Your task to perform on an android device: check out phone information Image 0: 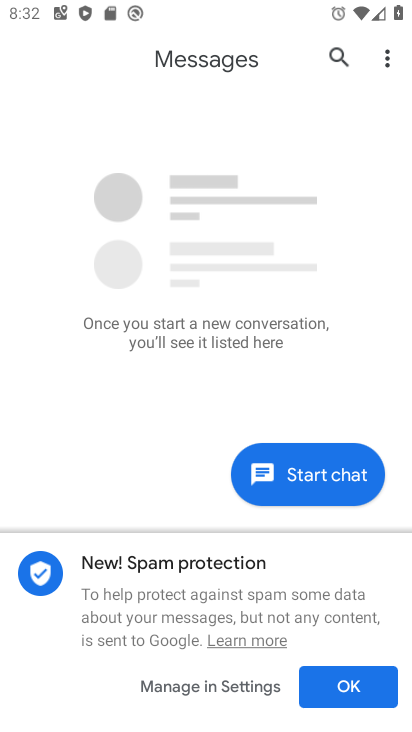
Step 0: press home button
Your task to perform on an android device: check out phone information Image 1: 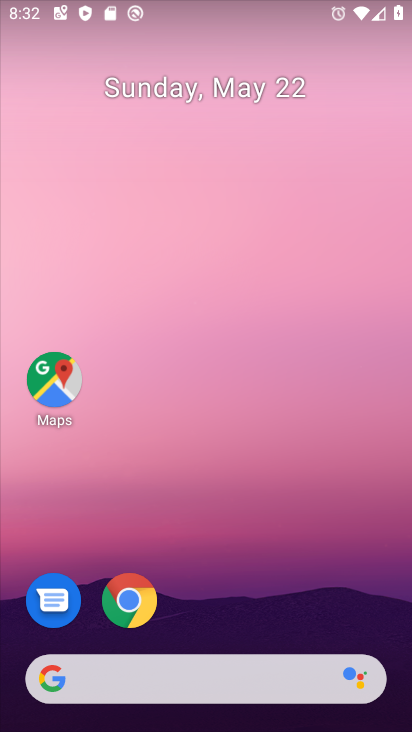
Step 1: drag from (274, 628) to (280, 299)
Your task to perform on an android device: check out phone information Image 2: 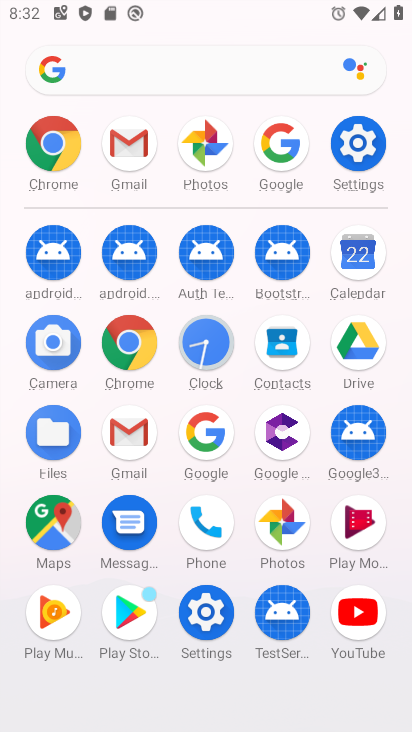
Step 2: click (366, 164)
Your task to perform on an android device: check out phone information Image 3: 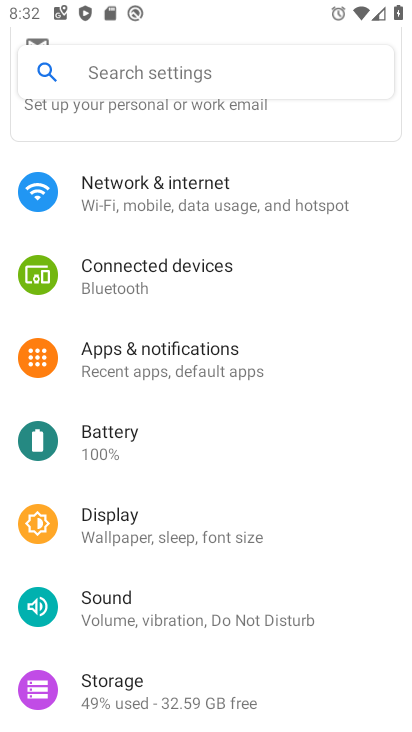
Step 3: drag from (302, 414) to (342, 252)
Your task to perform on an android device: check out phone information Image 4: 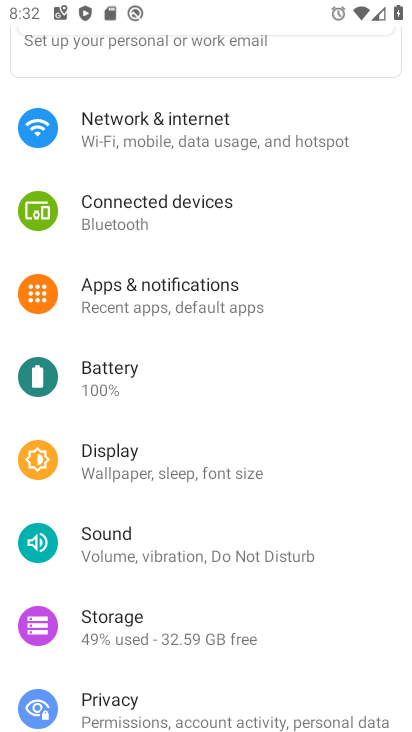
Step 4: drag from (286, 651) to (292, 530)
Your task to perform on an android device: check out phone information Image 5: 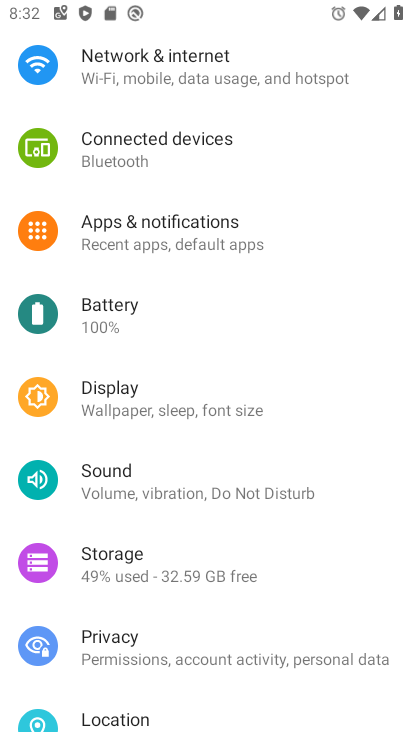
Step 5: drag from (260, 601) to (269, 341)
Your task to perform on an android device: check out phone information Image 6: 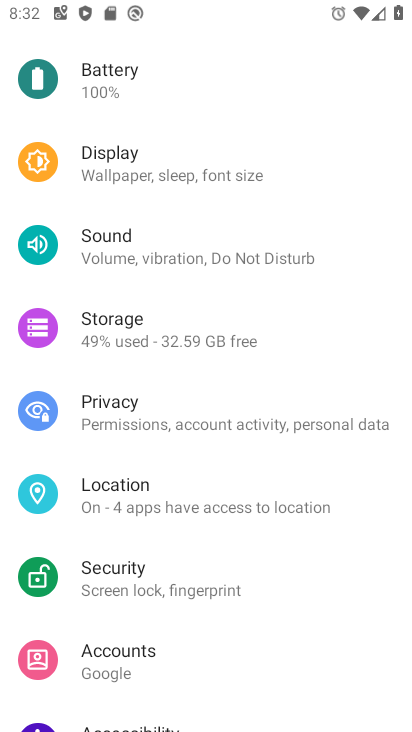
Step 6: drag from (244, 600) to (240, 378)
Your task to perform on an android device: check out phone information Image 7: 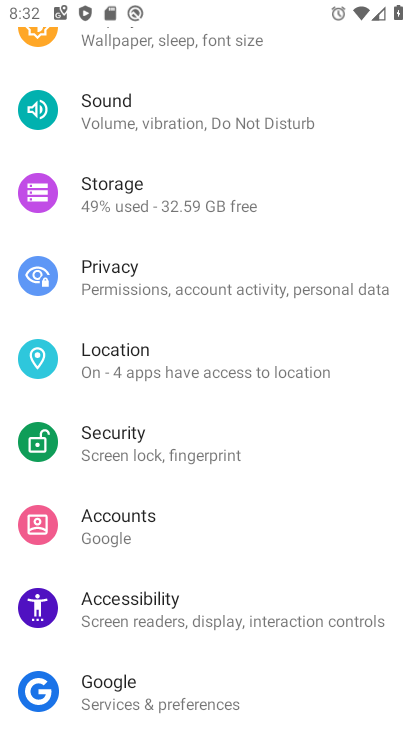
Step 7: drag from (264, 613) to (270, 334)
Your task to perform on an android device: check out phone information Image 8: 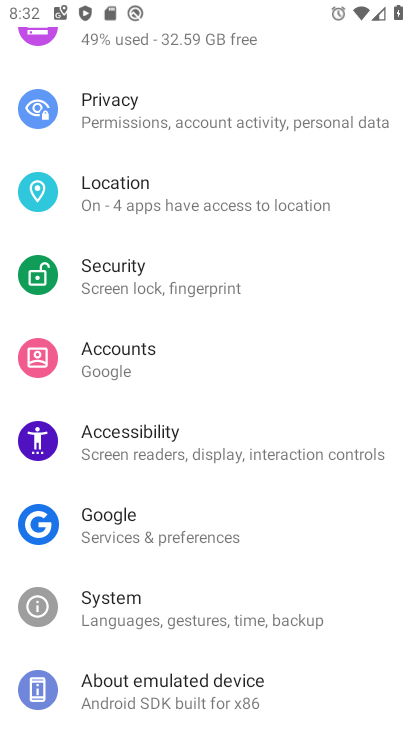
Step 8: click (226, 682)
Your task to perform on an android device: check out phone information Image 9: 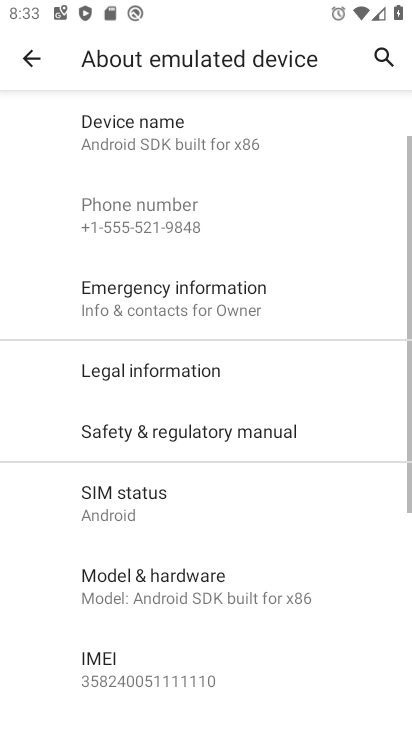
Step 9: task complete